Your task to perform on an android device: delete the emails in spam in the gmail app Image 0: 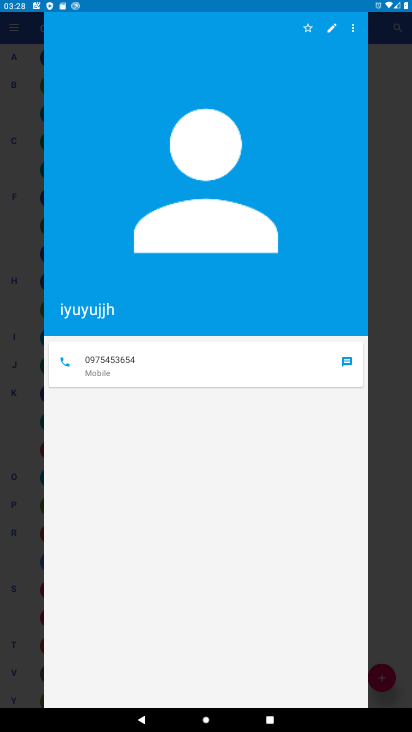
Step 0: press home button
Your task to perform on an android device: delete the emails in spam in the gmail app Image 1: 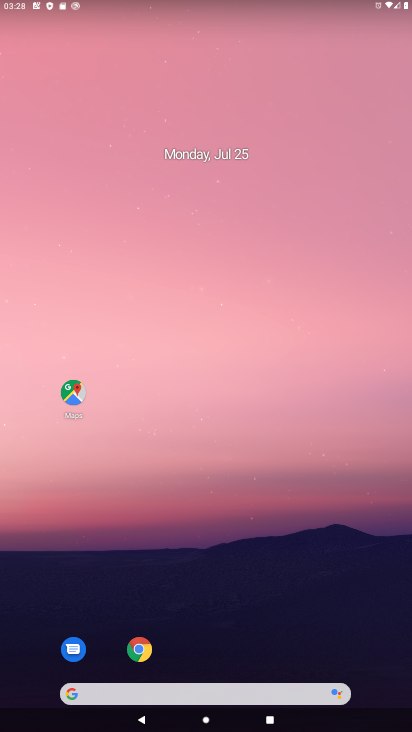
Step 1: drag from (381, 679) to (320, 74)
Your task to perform on an android device: delete the emails in spam in the gmail app Image 2: 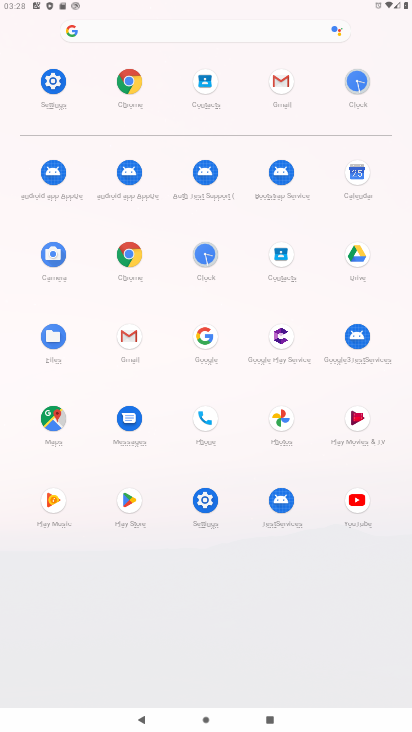
Step 2: click (128, 335)
Your task to perform on an android device: delete the emails in spam in the gmail app Image 3: 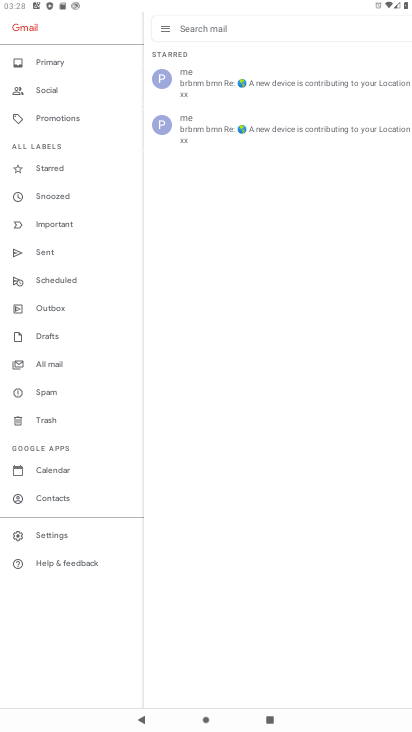
Step 3: click (40, 392)
Your task to perform on an android device: delete the emails in spam in the gmail app Image 4: 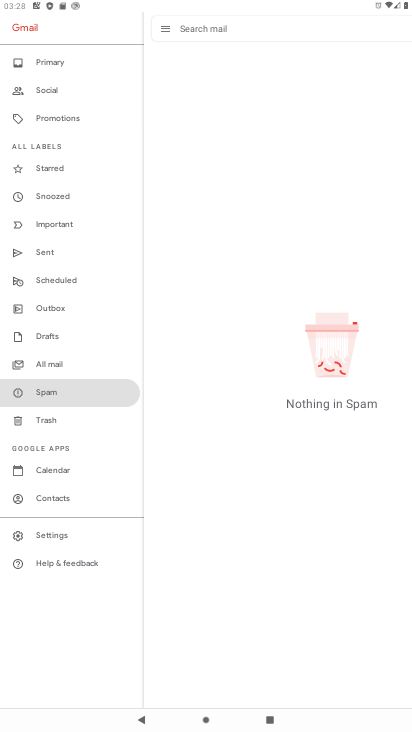
Step 4: task complete